Your task to perform on an android device: Clear all items from cart on bestbuy. Search for "lenovo thinkpad" on bestbuy, select the first entry, and add it to the cart. Image 0: 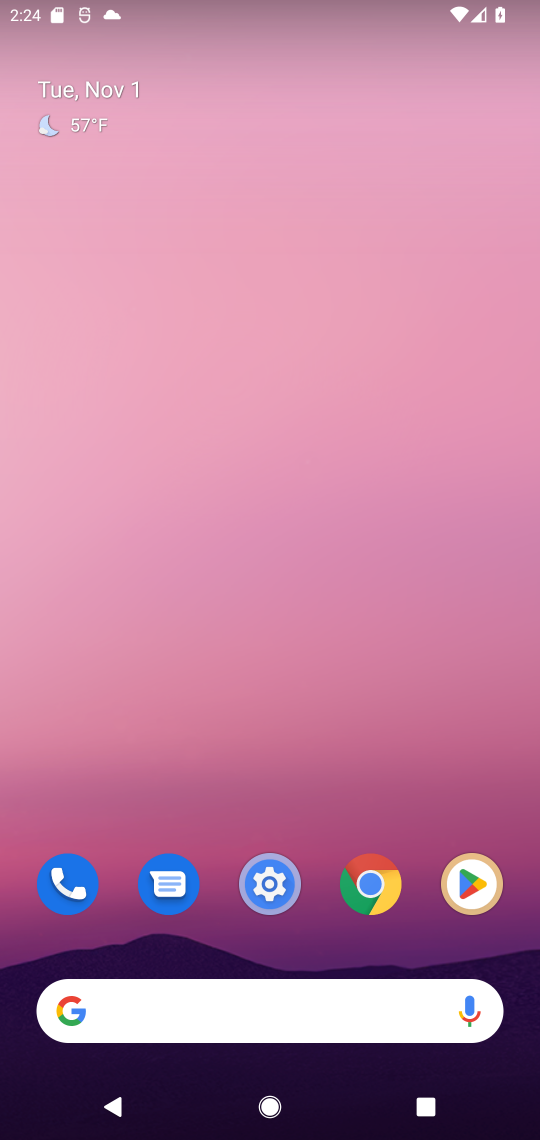
Step 0: press home button
Your task to perform on an android device: Clear all items from cart on bestbuy. Search for "lenovo thinkpad" on bestbuy, select the first entry, and add it to the cart. Image 1: 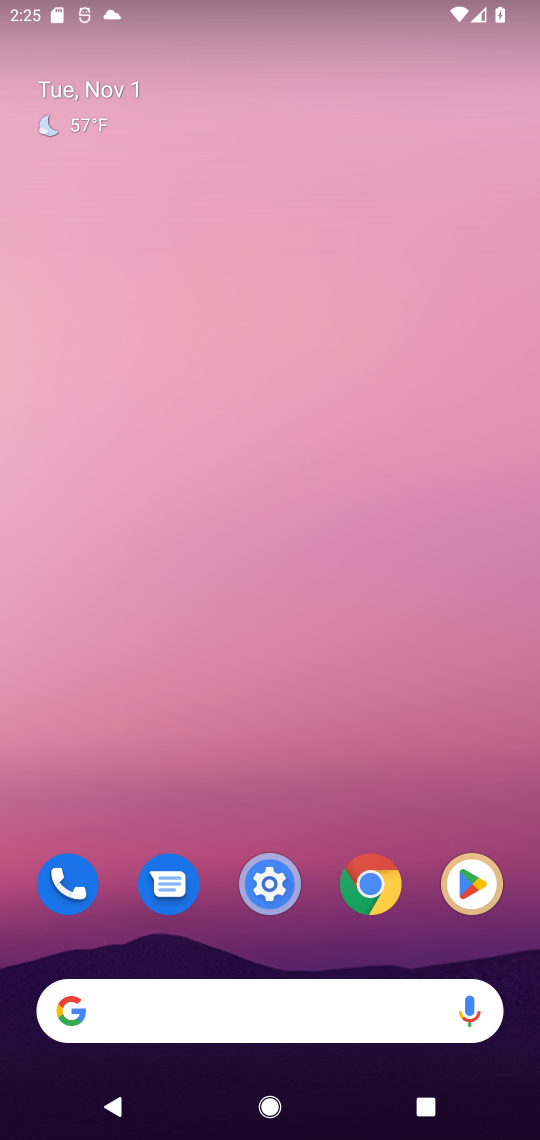
Step 1: click (98, 1014)
Your task to perform on an android device: Clear all items from cart on bestbuy. Search for "lenovo thinkpad" on bestbuy, select the first entry, and add it to the cart. Image 2: 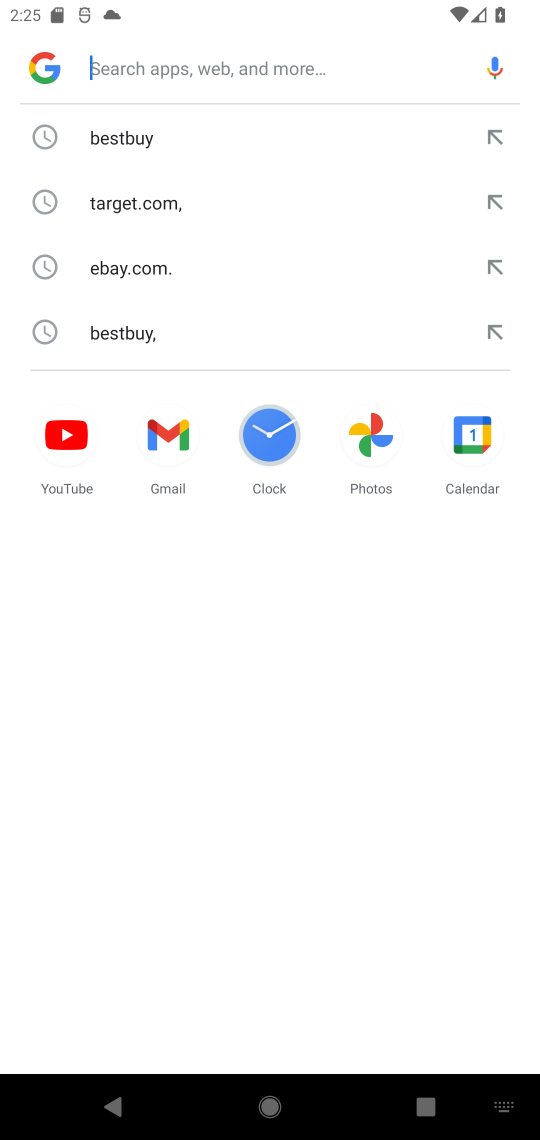
Step 2: type "bestbuy"
Your task to perform on an android device: Clear all items from cart on bestbuy. Search for "lenovo thinkpad" on bestbuy, select the first entry, and add it to the cart. Image 3: 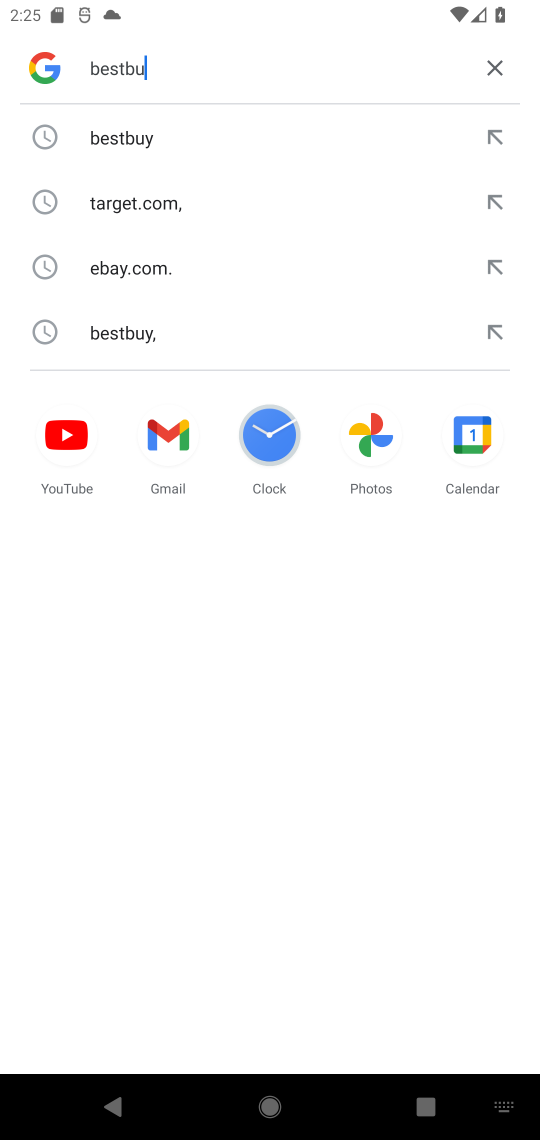
Step 3: press enter
Your task to perform on an android device: Clear all items from cart on bestbuy. Search for "lenovo thinkpad" on bestbuy, select the first entry, and add it to the cart. Image 4: 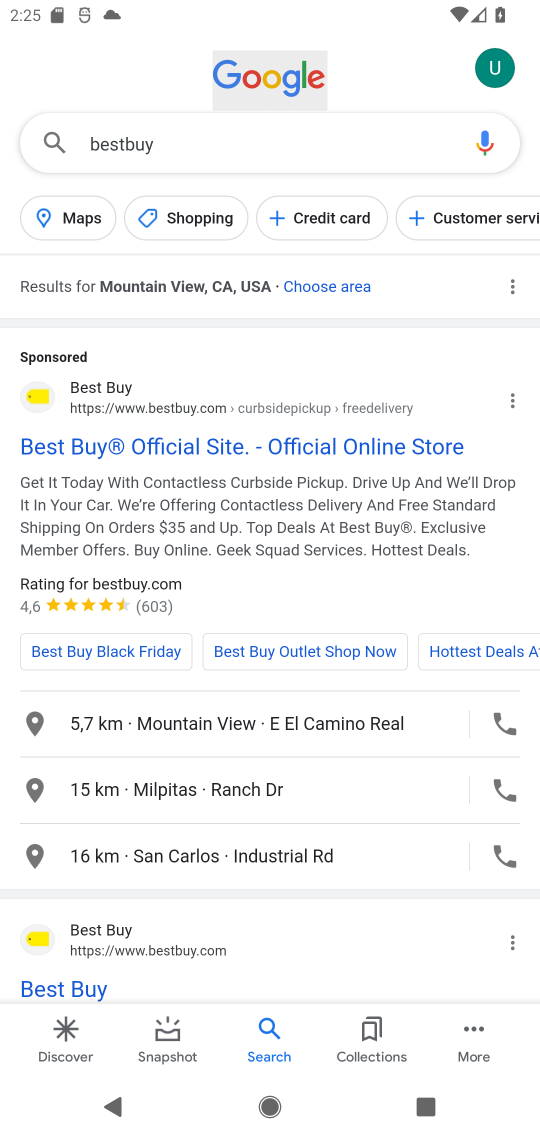
Step 4: click (107, 452)
Your task to perform on an android device: Clear all items from cart on bestbuy. Search for "lenovo thinkpad" on bestbuy, select the first entry, and add it to the cart. Image 5: 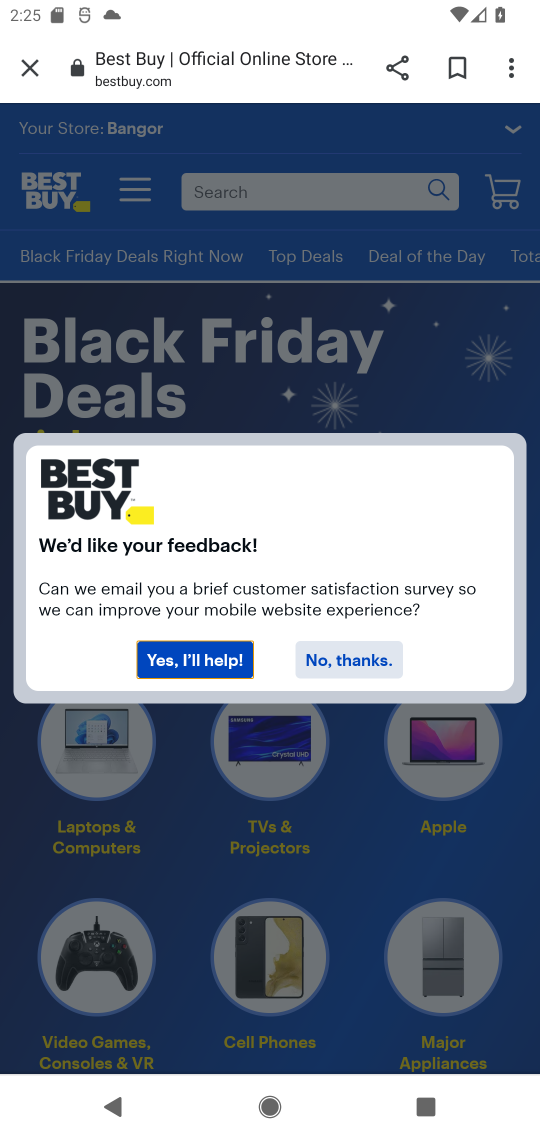
Step 5: click (339, 662)
Your task to perform on an android device: Clear all items from cart on bestbuy. Search for "lenovo thinkpad" on bestbuy, select the first entry, and add it to the cart. Image 6: 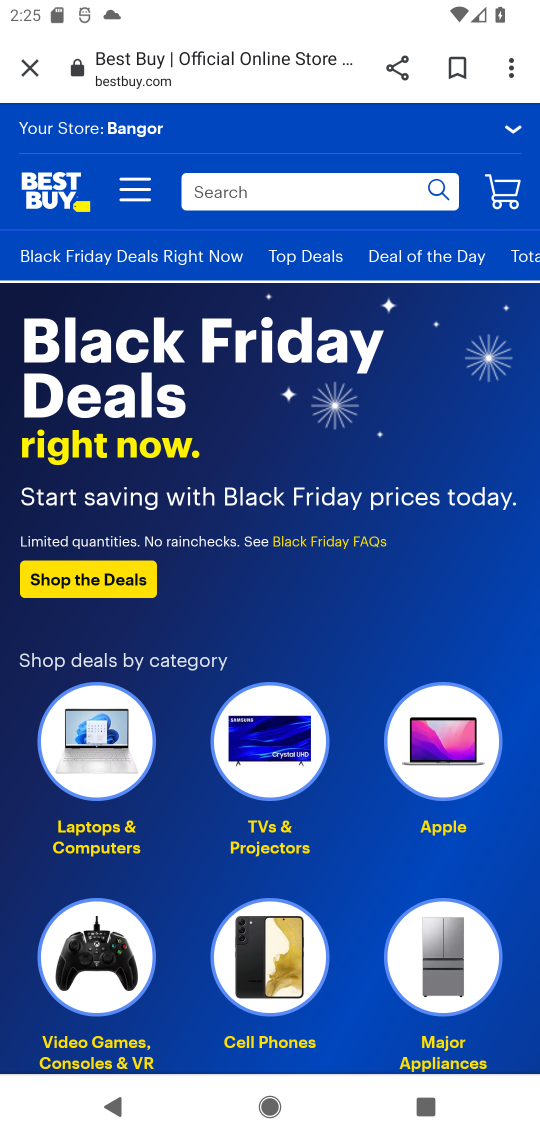
Step 6: click (339, 662)
Your task to perform on an android device: Clear all items from cart on bestbuy. Search for "lenovo thinkpad" on bestbuy, select the first entry, and add it to the cart. Image 7: 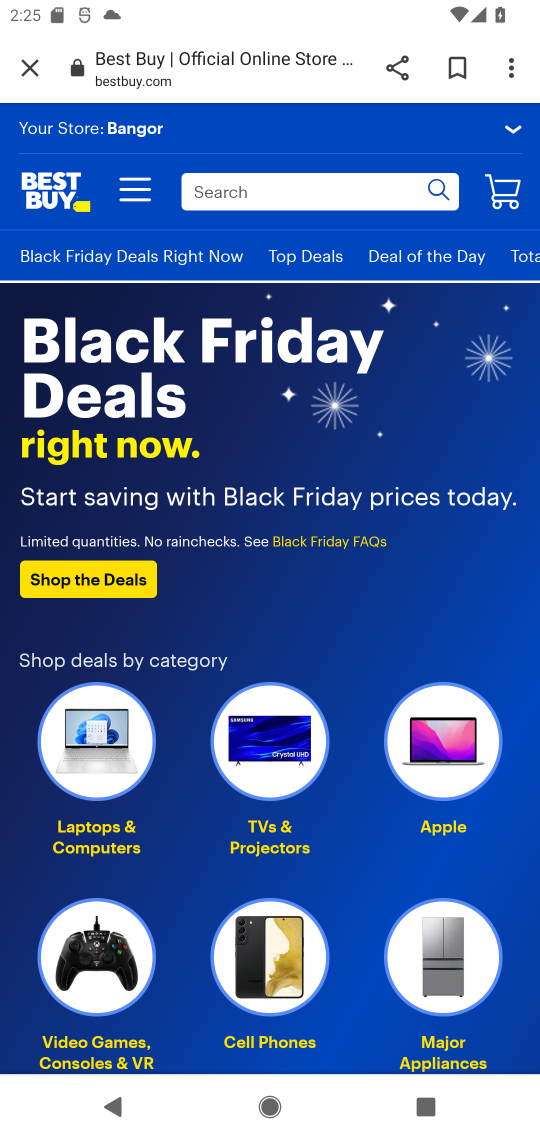
Step 7: click (513, 187)
Your task to perform on an android device: Clear all items from cart on bestbuy. Search for "lenovo thinkpad" on bestbuy, select the first entry, and add it to the cart. Image 8: 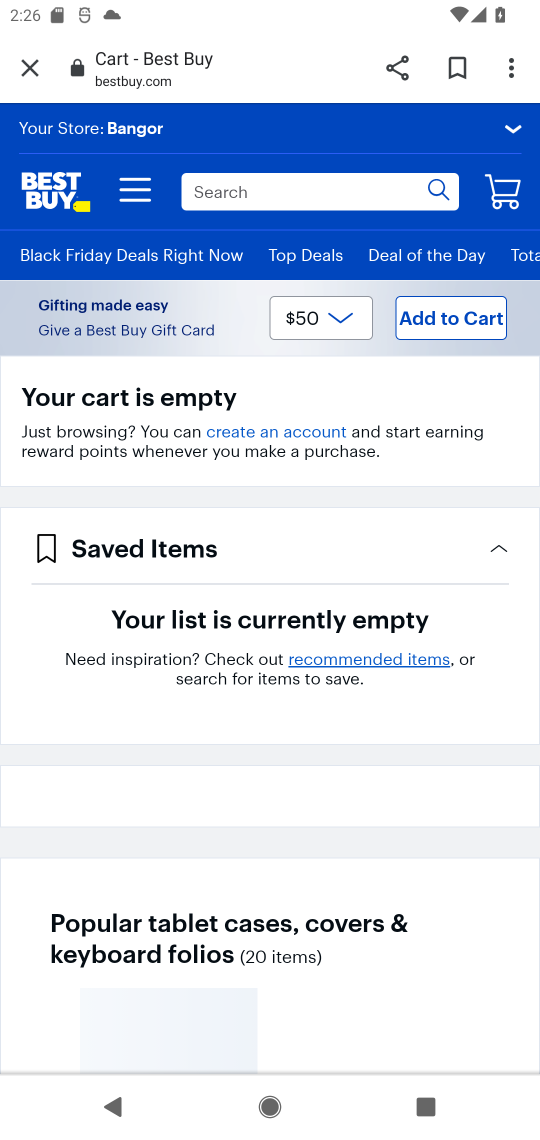
Step 8: click (214, 193)
Your task to perform on an android device: Clear all items from cart on bestbuy. Search for "lenovo thinkpad" on bestbuy, select the first entry, and add it to the cart. Image 9: 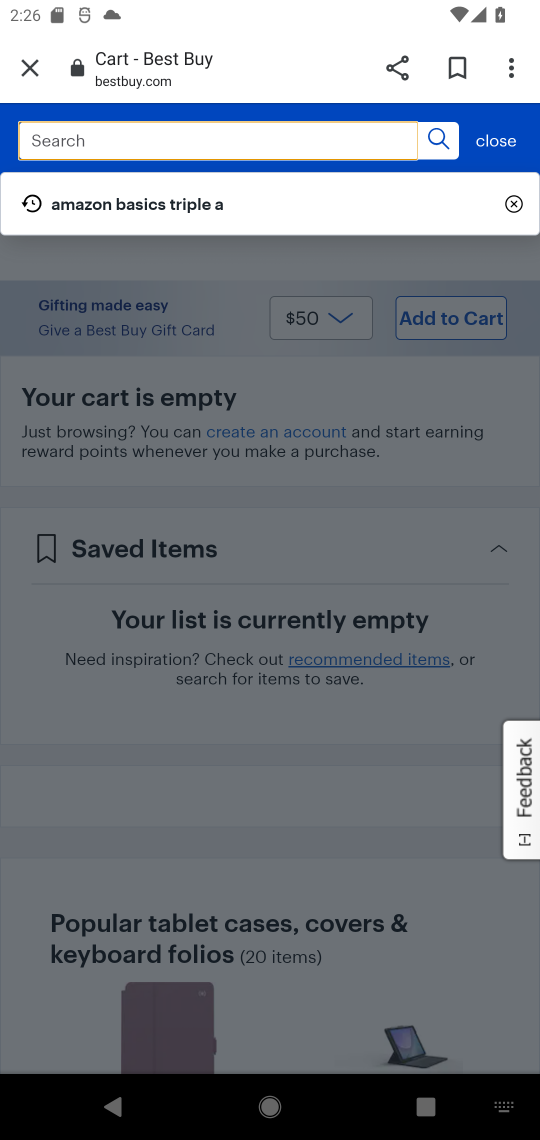
Step 9: type "lenovo thinkpad"
Your task to perform on an android device: Clear all items from cart on bestbuy. Search for "lenovo thinkpad" on bestbuy, select the first entry, and add it to the cart. Image 10: 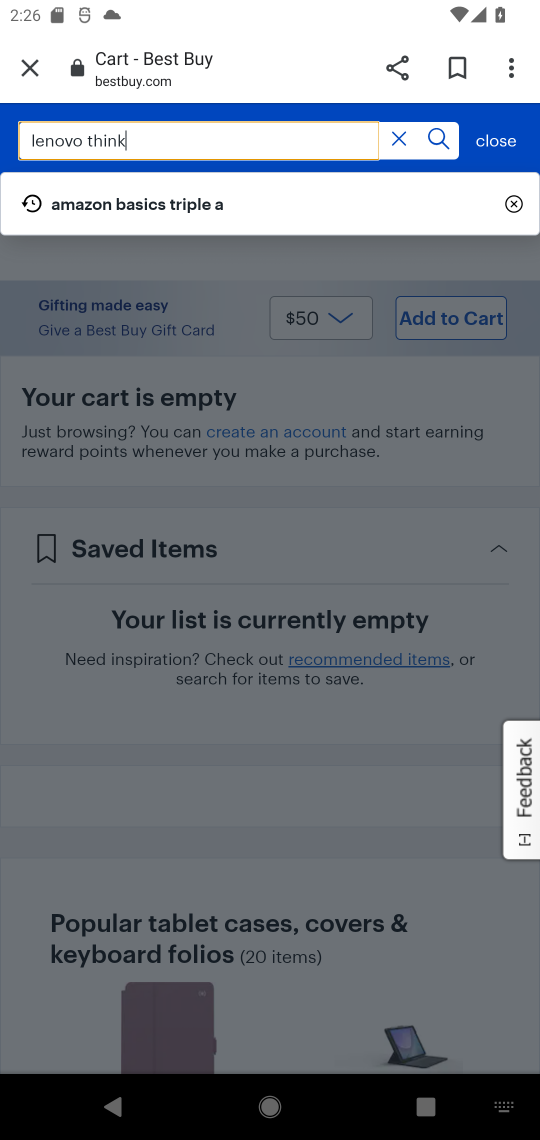
Step 10: press enter
Your task to perform on an android device: Clear all items from cart on bestbuy. Search for "lenovo thinkpad" on bestbuy, select the first entry, and add it to the cart. Image 11: 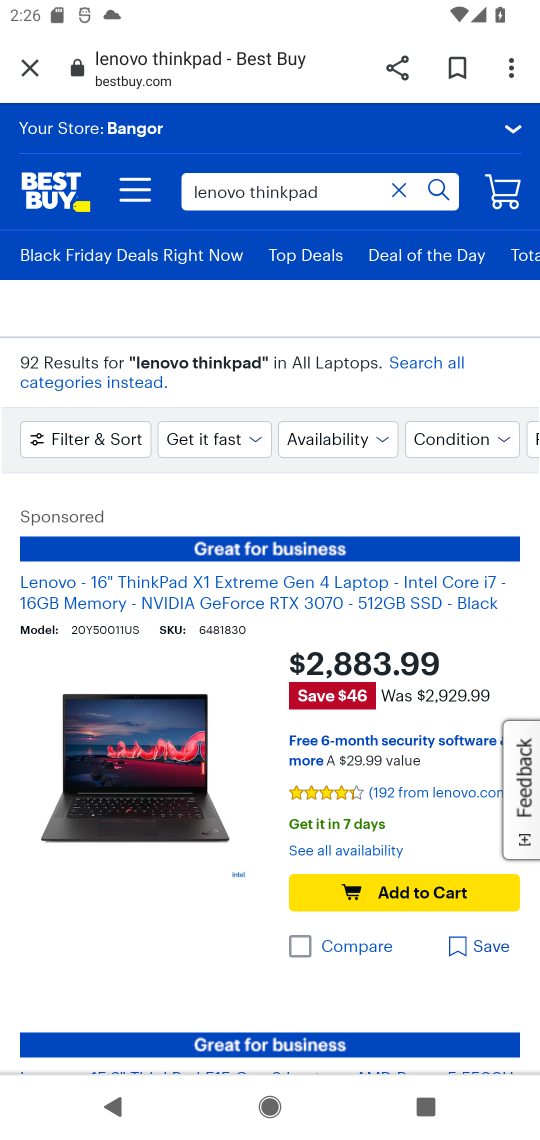
Step 11: click (427, 890)
Your task to perform on an android device: Clear all items from cart on bestbuy. Search for "lenovo thinkpad" on bestbuy, select the first entry, and add it to the cart. Image 12: 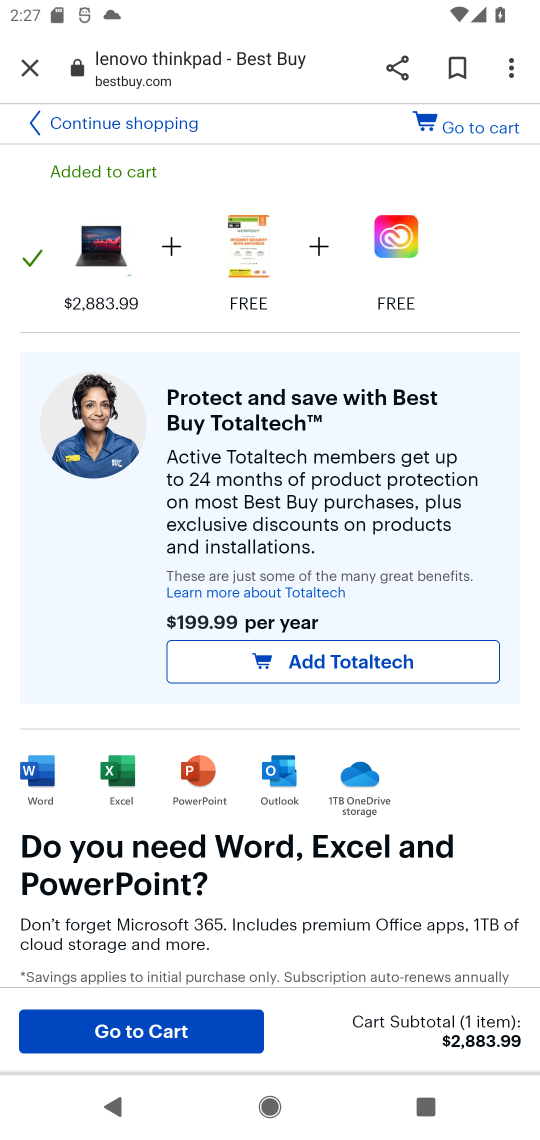
Step 12: task complete